Your task to perform on an android device: Go to Google maps Image 0: 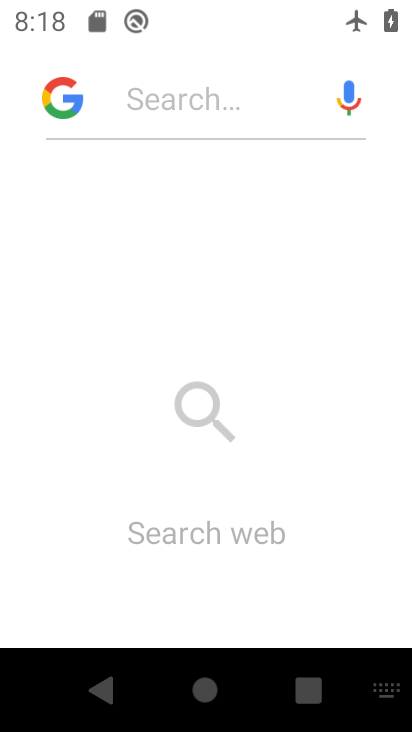
Step 0: press back button
Your task to perform on an android device: Go to Google maps Image 1: 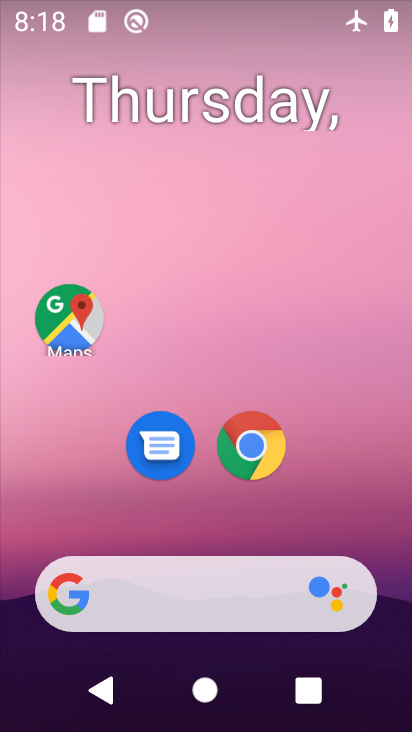
Step 1: click (77, 318)
Your task to perform on an android device: Go to Google maps Image 2: 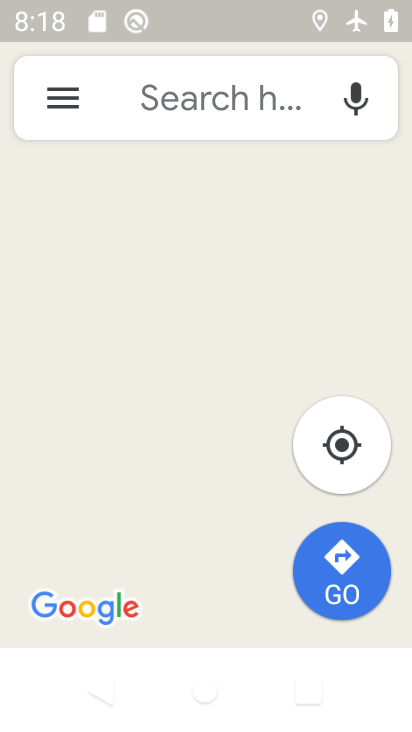
Step 2: task complete